Your task to perform on an android device: turn on the 12-hour format for clock Image 0: 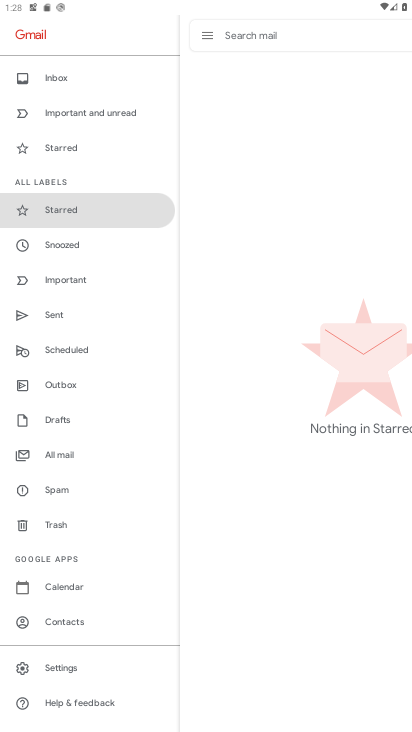
Step 0: press home button
Your task to perform on an android device: turn on the 12-hour format for clock Image 1: 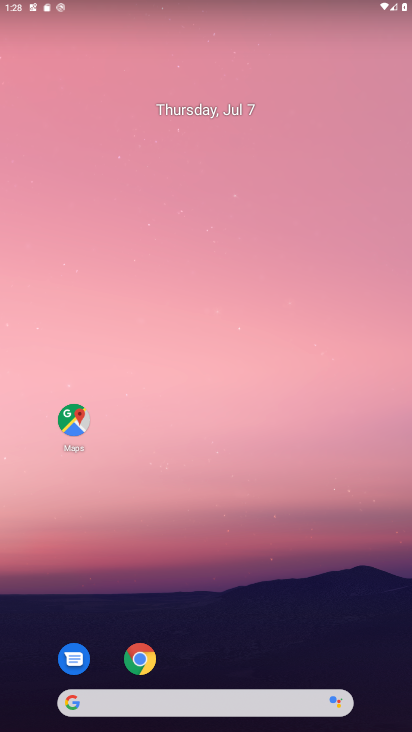
Step 1: drag from (179, 665) to (211, 120)
Your task to perform on an android device: turn on the 12-hour format for clock Image 2: 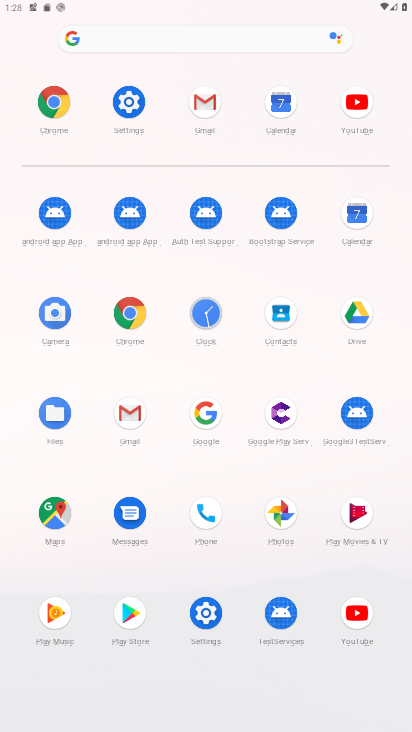
Step 2: click (202, 301)
Your task to perform on an android device: turn on the 12-hour format for clock Image 3: 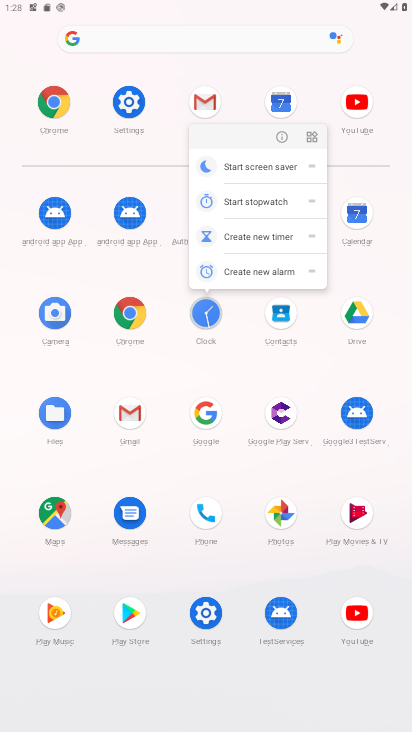
Step 3: click (275, 134)
Your task to perform on an android device: turn on the 12-hour format for clock Image 4: 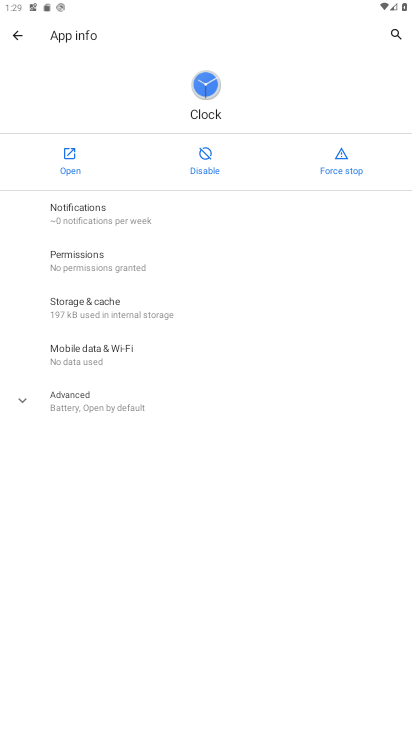
Step 4: click (68, 156)
Your task to perform on an android device: turn on the 12-hour format for clock Image 5: 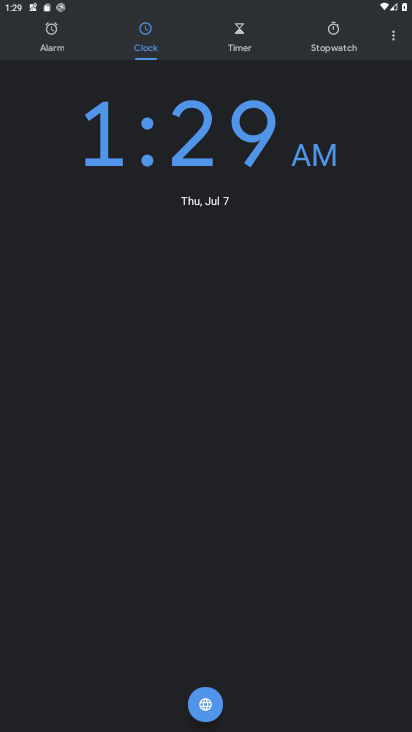
Step 5: click (395, 45)
Your task to perform on an android device: turn on the 12-hour format for clock Image 6: 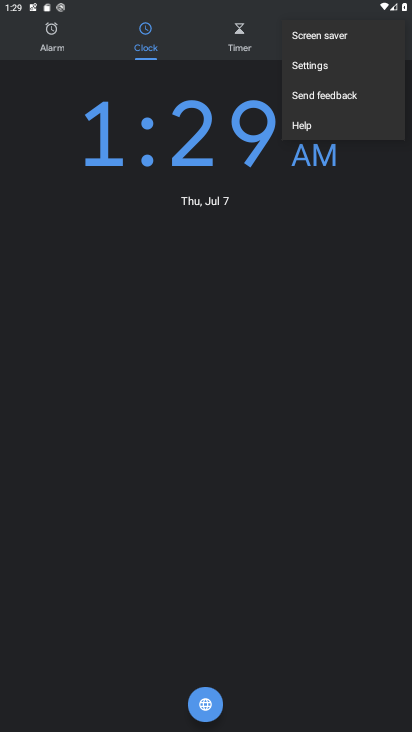
Step 6: click (334, 67)
Your task to perform on an android device: turn on the 12-hour format for clock Image 7: 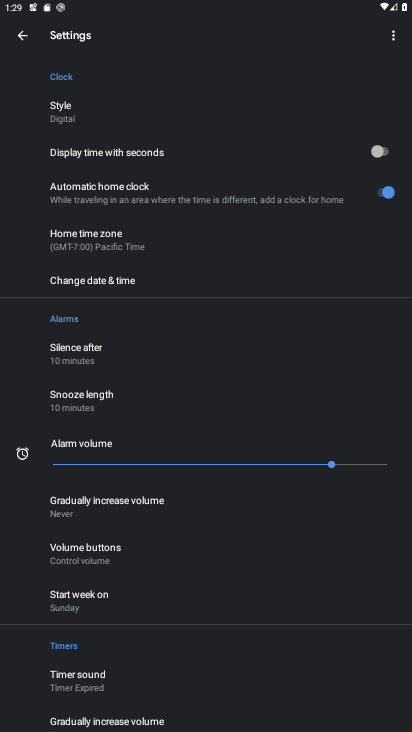
Step 7: drag from (182, 527) to (255, 158)
Your task to perform on an android device: turn on the 12-hour format for clock Image 8: 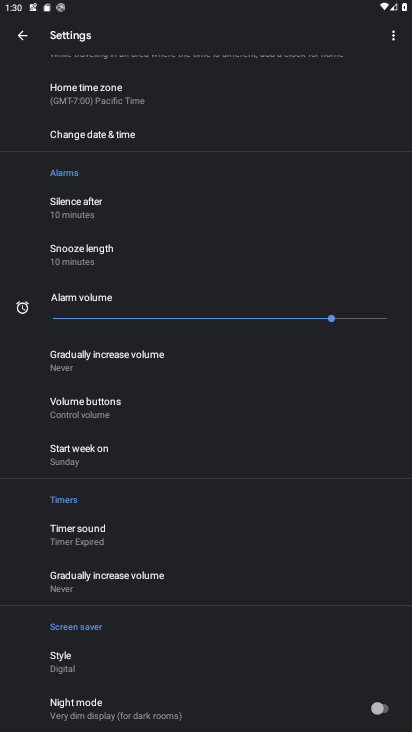
Step 8: drag from (190, 184) to (273, 693)
Your task to perform on an android device: turn on the 12-hour format for clock Image 9: 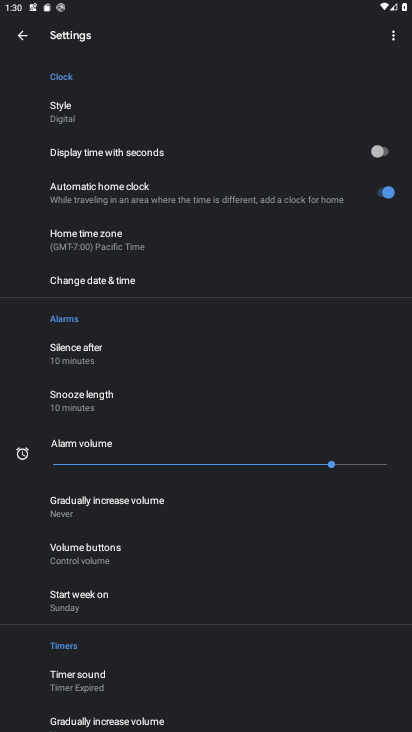
Step 9: click (92, 284)
Your task to perform on an android device: turn on the 12-hour format for clock Image 10: 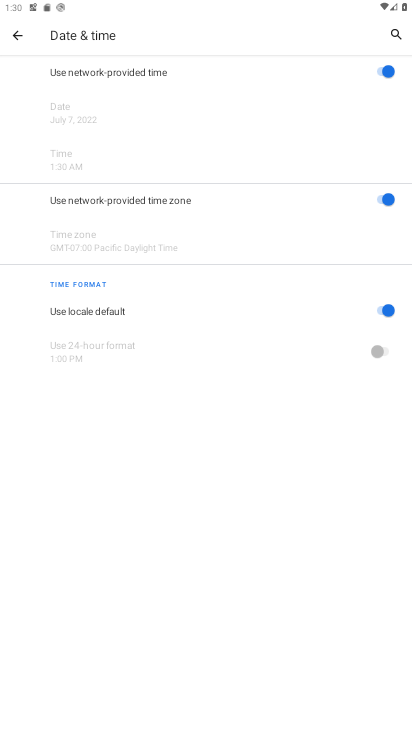
Step 10: task complete